Your task to perform on an android device: turn notification dots on Image 0: 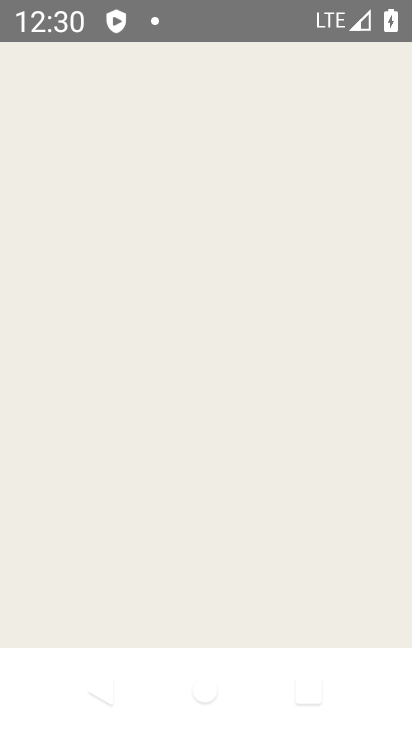
Step 0: press home button
Your task to perform on an android device: turn notification dots on Image 1: 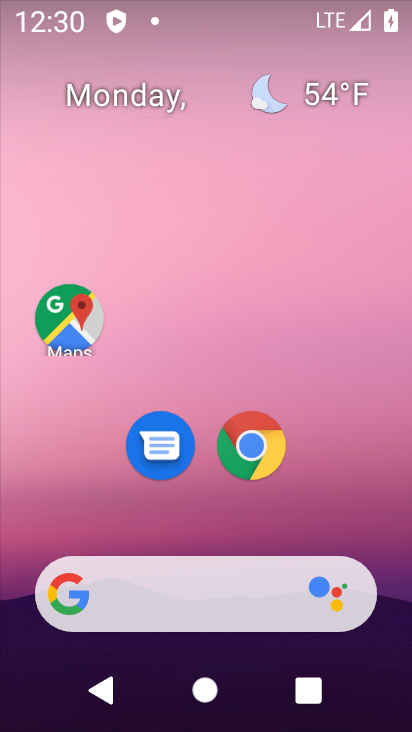
Step 1: drag from (365, 510) to (342, 143)
Your task to perform on an android device: turn notification dots on Image 2: 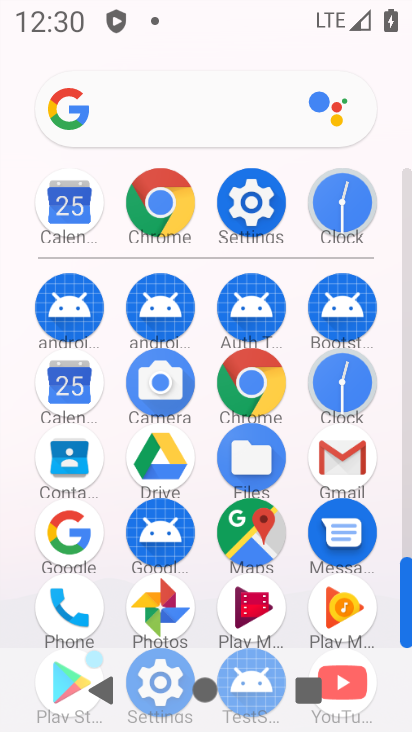
Step 2: click (248, 220)
Your task to perform on an android device: turn notification dots on Image 3: 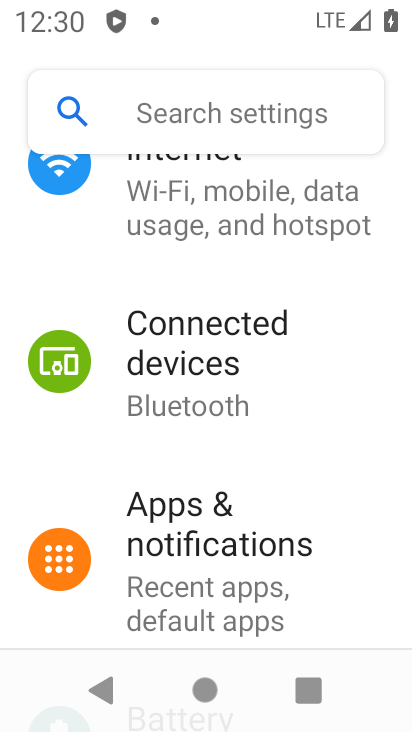
Step 3: click (249, 534)
Your task to perform on an android device: turn notification dots on Image 4: 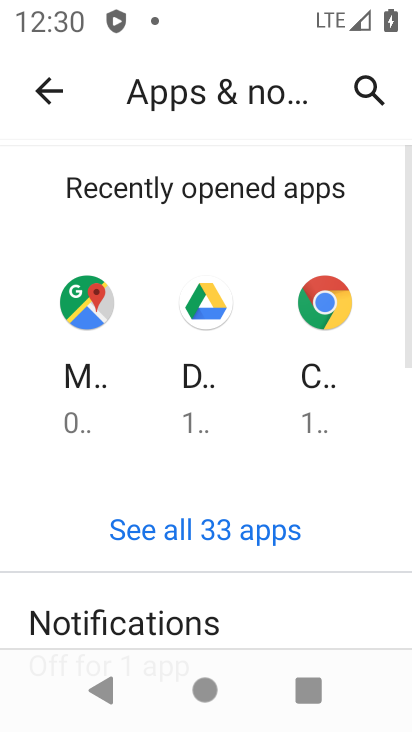
Step 4: drag from (325, 580) to (327, 250)
Your task to perform on an android device: turn notification dots on Image 5: 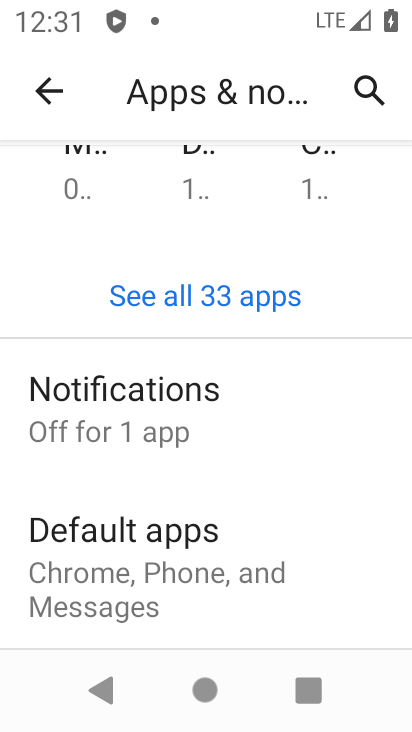
Step 5: click (127, 422)
Your task to perform on an android device: turn notification dots on Image 6: 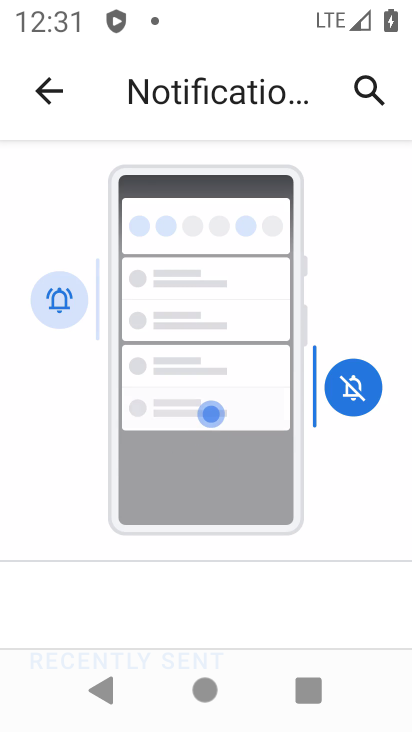
Step 6: drag from (340, 576) to (311, 206)
Your task to perform on an android device: turn notification dots on Image 7: 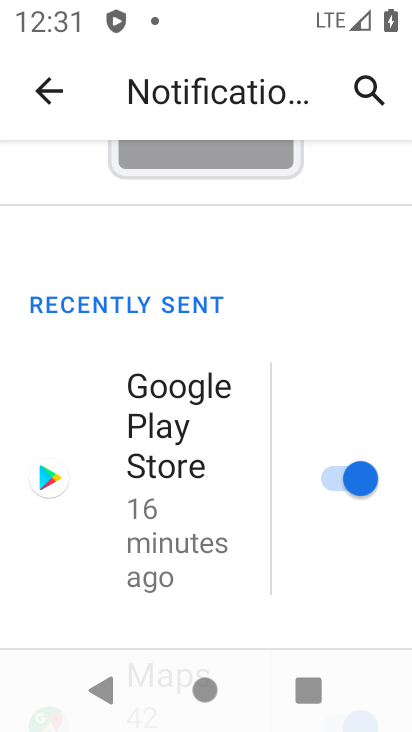
Step 7: drag from (269, 583) to (316, 265)
Your task to perform on an android device: turn notification dots on Image 8: 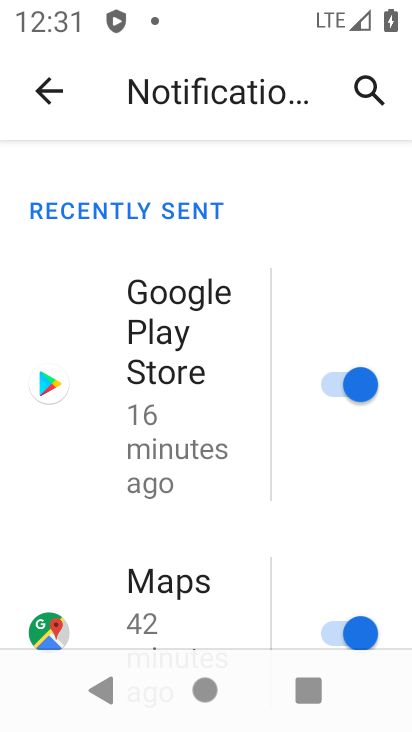
Step 8: drag from (249, 602) to (290, 228)
Your task to perform on an android device: turn notification dots on Image 9: 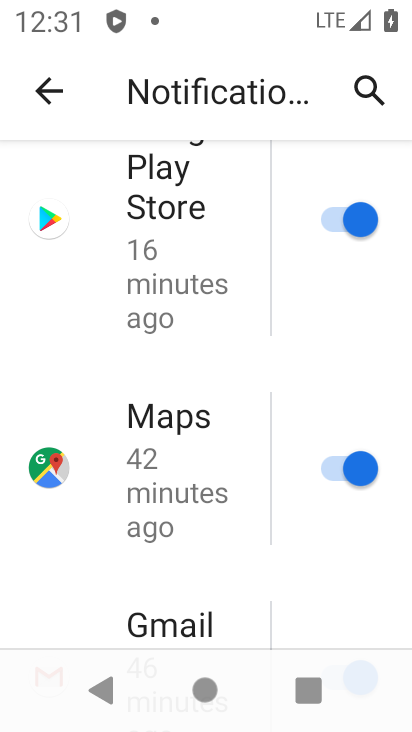
Step 9: drag from (231, 569) to (273, 143)
Your task to perform on an android device: turn notification dots on Image 10: 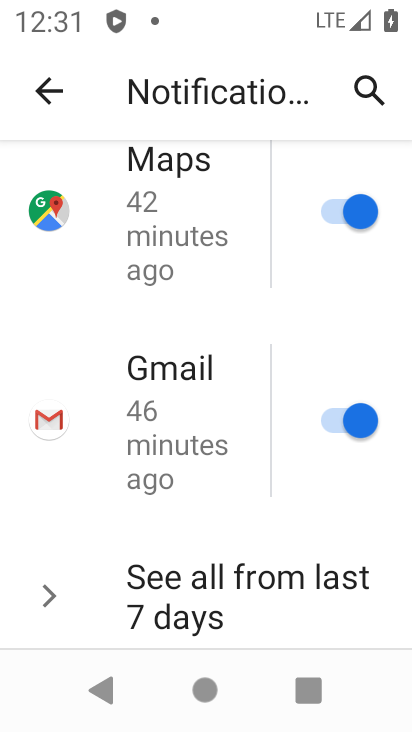
Step 10: drag from (256, 609) to (273, 192)
Your task to perform on an android device: turn notification dots on Image 11: 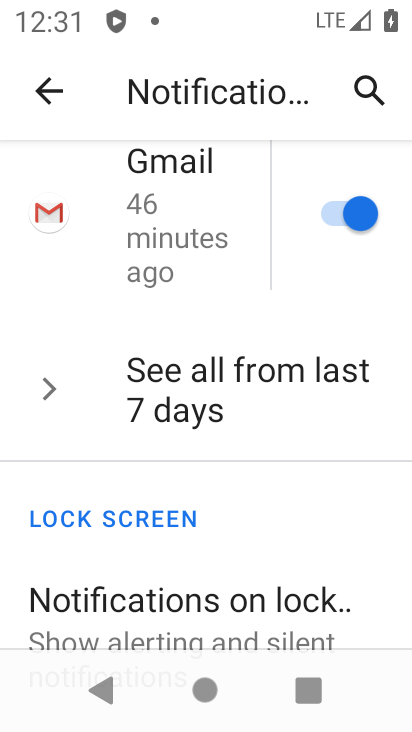
Step 11: drag from (236, 554) to (242, 192)
Your task to perform on an android device: turn notification dots on Image 12: 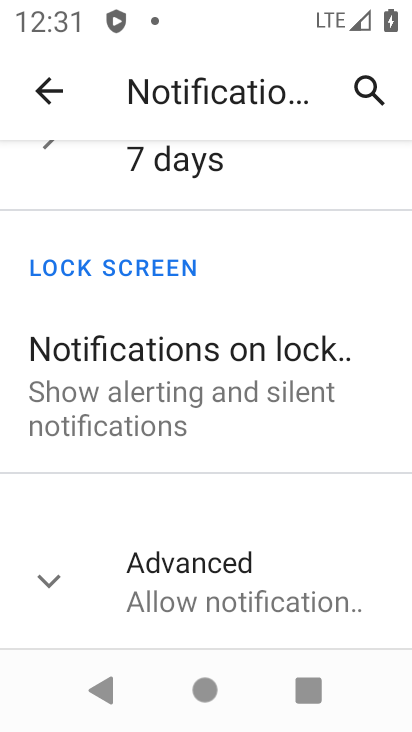
Step 12: drag from (252, 407) to (259, 159)
Your task to perform on an android device: turn notification dots on Image 13: 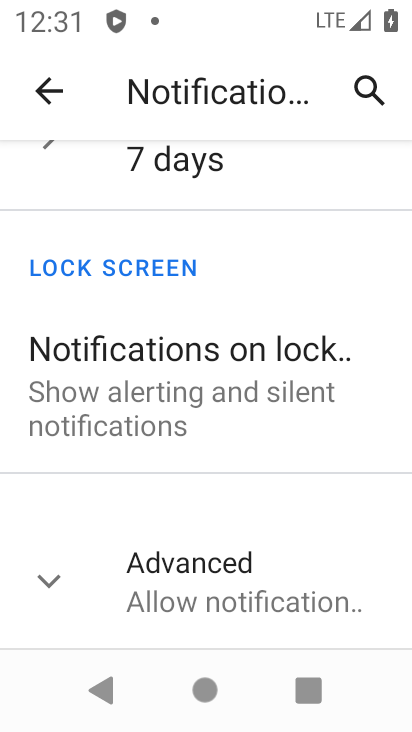
Step 13: click (219, 584)
Your task to perform on an android device: turn notification dots on Image 14: 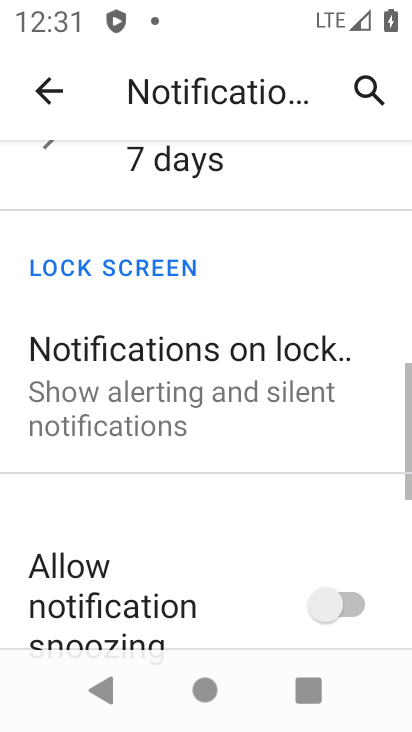
Step 14: task complete